Your task to perform on an android device: turn on priority inbox in the gmail app Image 0: 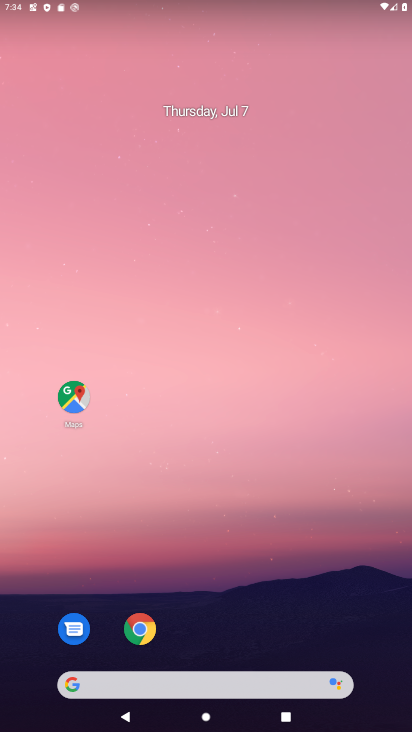
Step 0: drag from (377, 605) to (390, 184)
Your task to perform on an android device: turn on priority inbox in the gmail app Image 1: 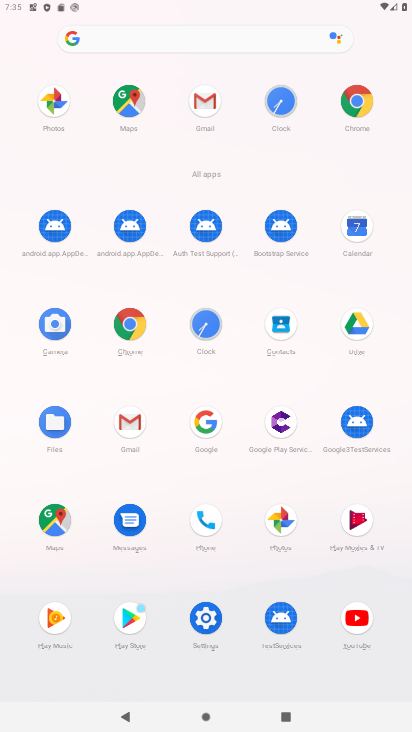
Step 1: click (128, 421)
Your task to perform on an android device: turn on priority inbox in the gmail app Image 2: 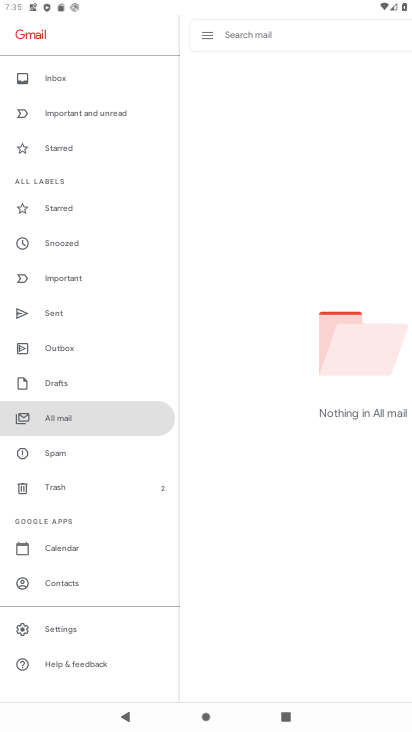
Step 2: click (74, 622)
Your task to perform on an android device: turn on priority inbox in the gmail app Image 3: 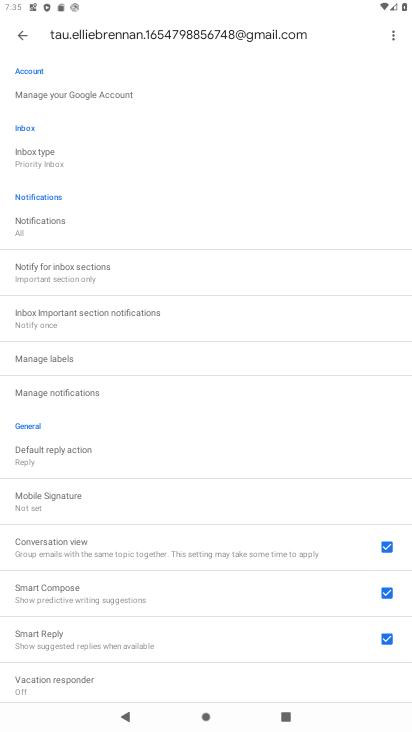
Step 3: drag from (260, 225) to (262, 437)
Your task to perform on an android device: turn on priority inbox in the gmail app Image 4: 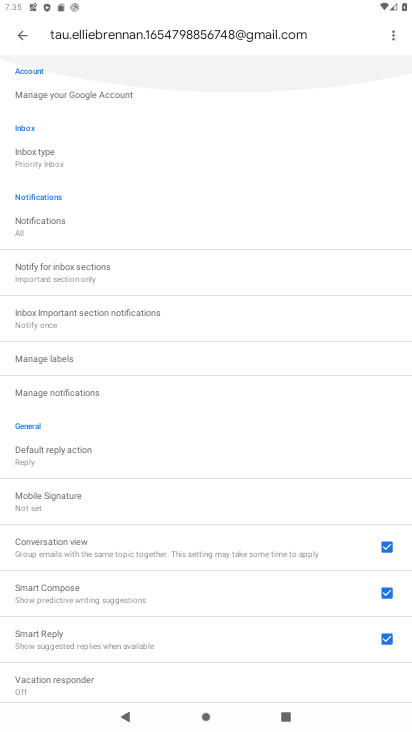
Step 4: drag from (262, 442) to (276, 288)
Your task to perform on an android device: turn on priority inbox in the gmail app Image 5: 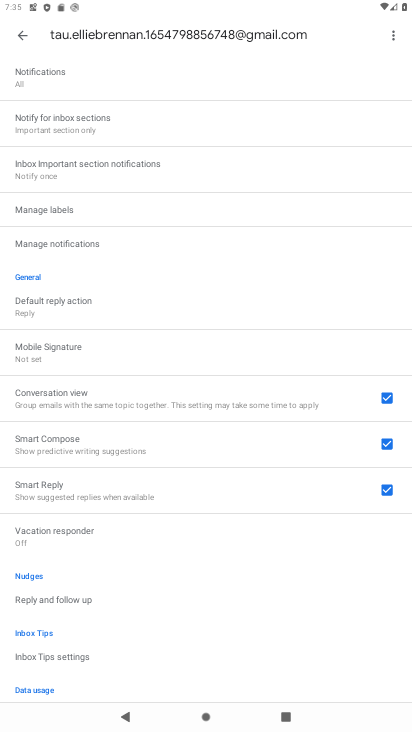
Step 5: drag from (292, 435) to (303, 332)
Your task to perform on an android device: turn on priority inbox in the gmail app Image 6: 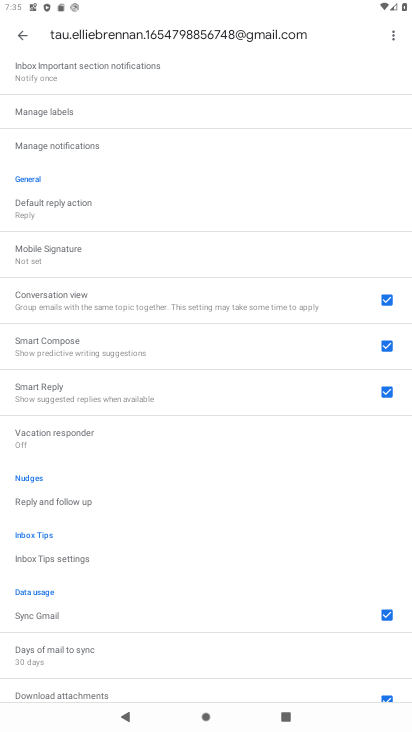
Step 6: drag from (294, 493) to (298, 354)
Your task to perform on an android device: turn on priority inbox in the gmail app Image 7: 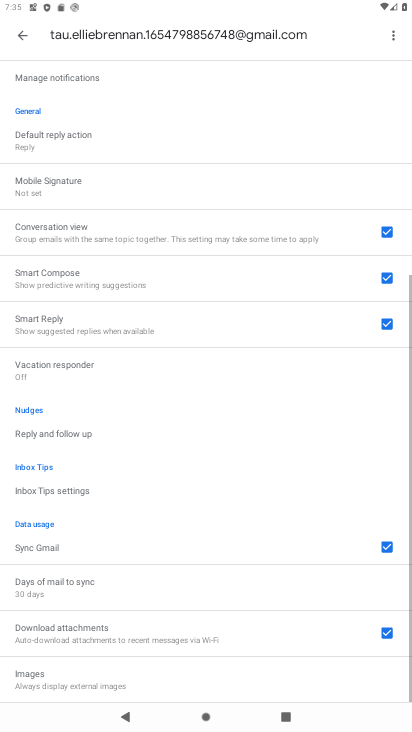
Step 7: drag from (308, 519) to (306, 305)
Your task to perform on an android device: turn on priority inbox in the gmail app Image 8: 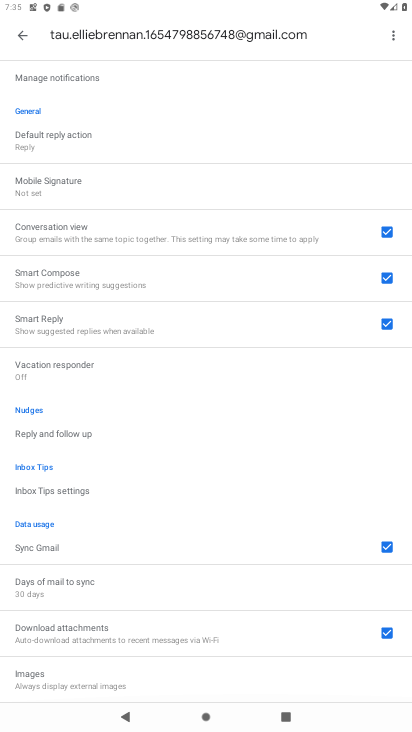
Step 8: drag from (306, 242) to (308, 303)
Your task to perform on an android device: turn on priority inbox in the gmail app Image 9: 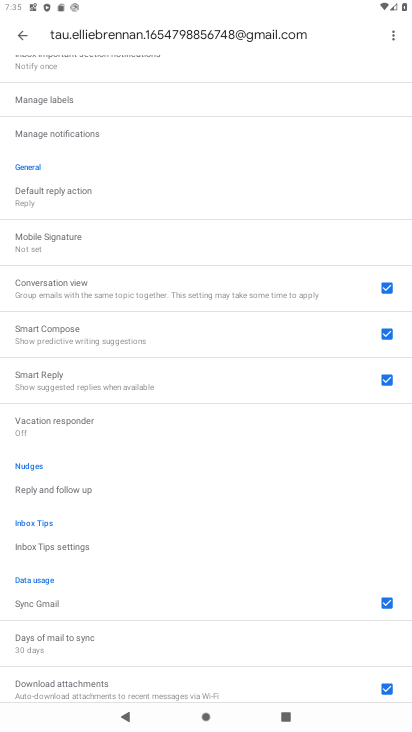
Step 9: drag from (315, 221) to (321, 347)
Your task to perform on an android device: turn on priority inbox in the gmail app Image 10: 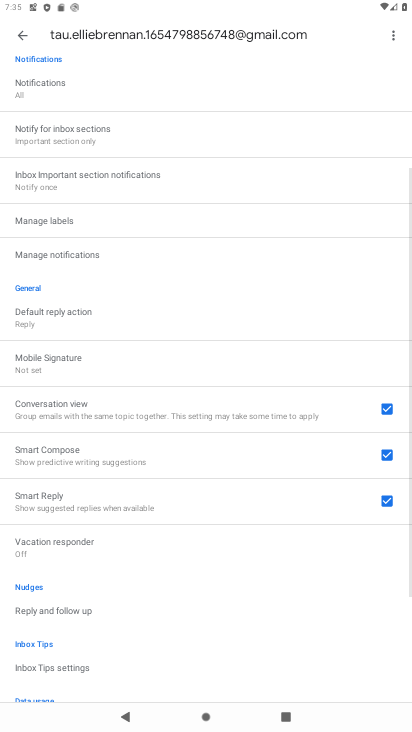
Step 10: drag from (319, 223) to (316, 365)
Your task to perform on an android device: turn on priority inbox in the gmail app Image 11: 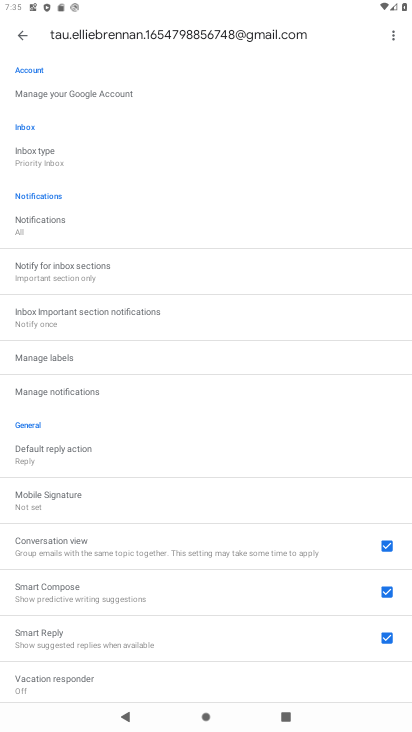
Step 11: drag from (297, 231) to (300, 372)
Your task to perform on an android device: turn on priority inbox in the gmail app Image 12: 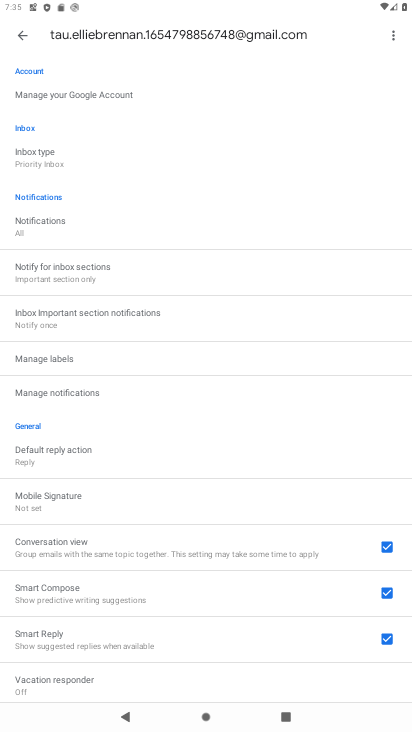
Step 12: click (57, 158)
Your task to perform on an android device: turn on priority inbox in the gmail app Image 13: 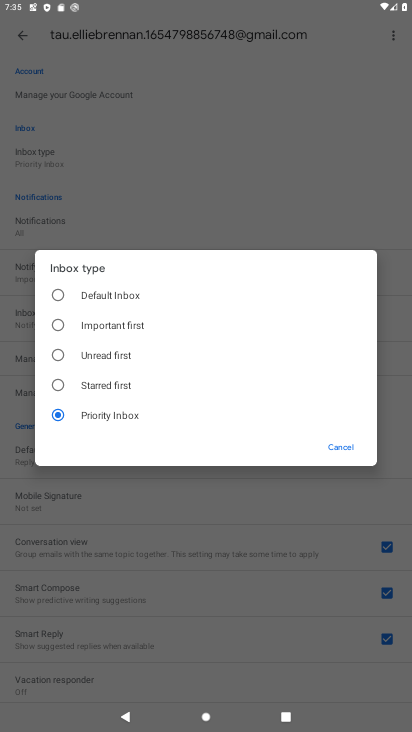
Step 13: task complete